Your task to perform on an android device: toggle notifications settings in the gmail app Image 0: 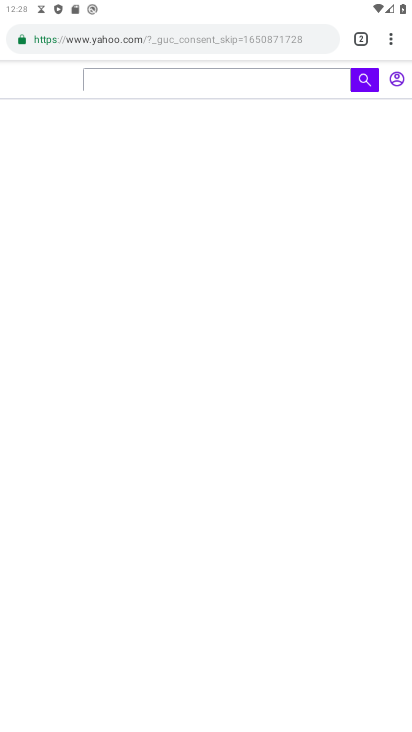
Step 0: press home button
Your task to perform on an android device: toggle notifications settings in the gmail app Image 1: 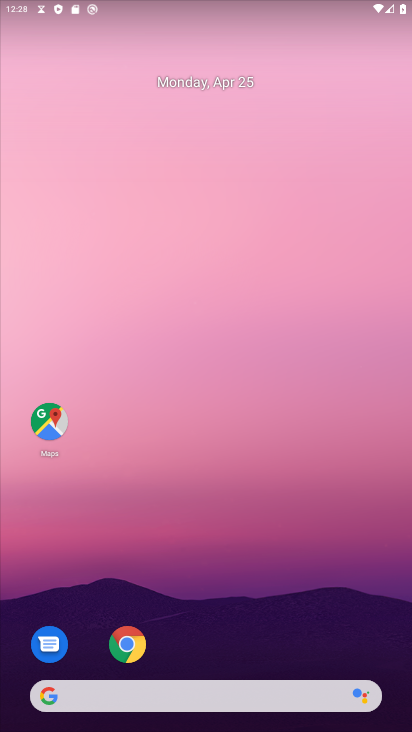
Step 1: drag from (384, 656) to (398, 60)
Your task to perform on an android device: toggle notifications settings in the gmail app Image 2: 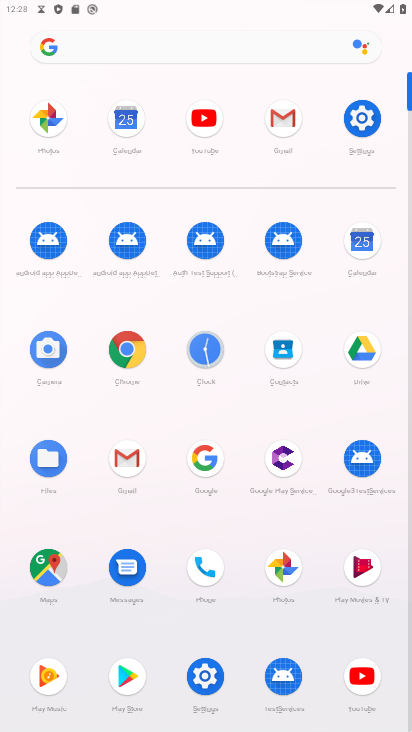
Step 2: click (283, 123)
Your task to perform on an android device: toggle notifications settings in the gmail app Image 3: 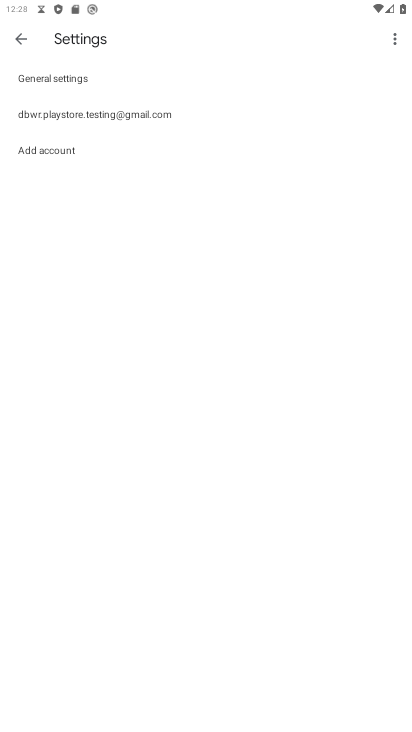
Step 3: click (48, 80)
Your task to perform on an android device: toggle notifications settings in the gmail app Image 4: 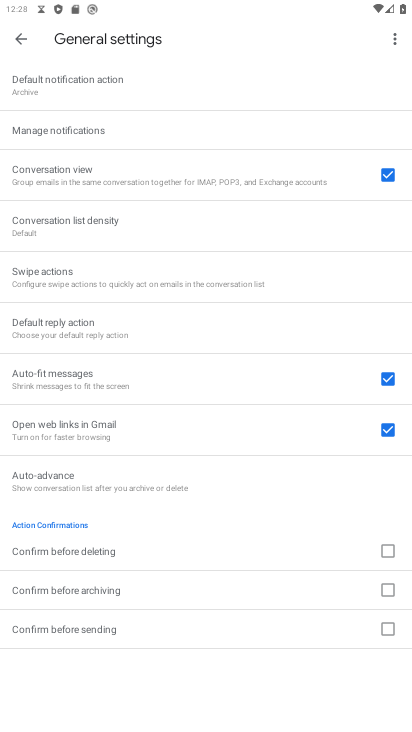
Step 4: click (52, 138)
Your task to perform on an android device: toggle notifications settings in the gmail app Image 5: 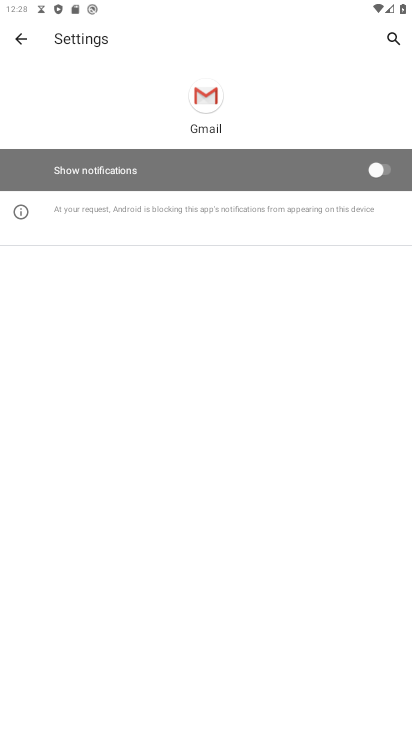
Step 5: click (381, 176)
Your task to perform on an android device: toggle notifications settings in the gmail app Image 6: 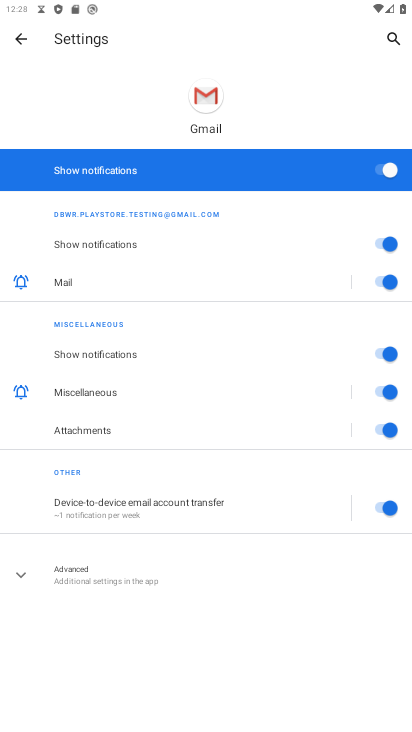
Step 6: task complete